Your task to perform on an android device: Play the last video I watched on Youtube Image 0: 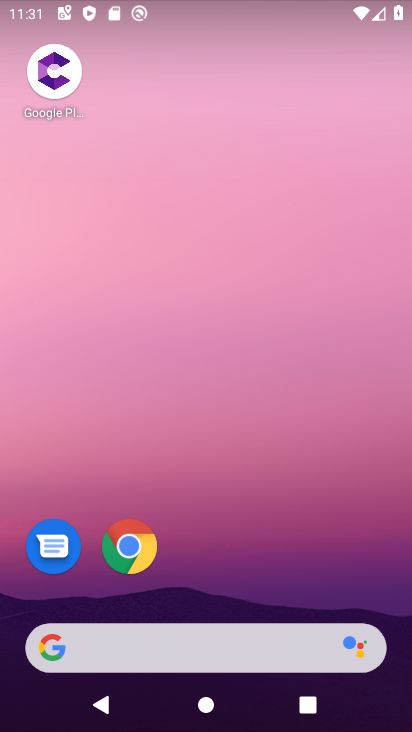
Step 0: drag from (231, 538) to (157, 77)
Your task to perform on an android device: Play the last video I watched on Youtube Image 1: 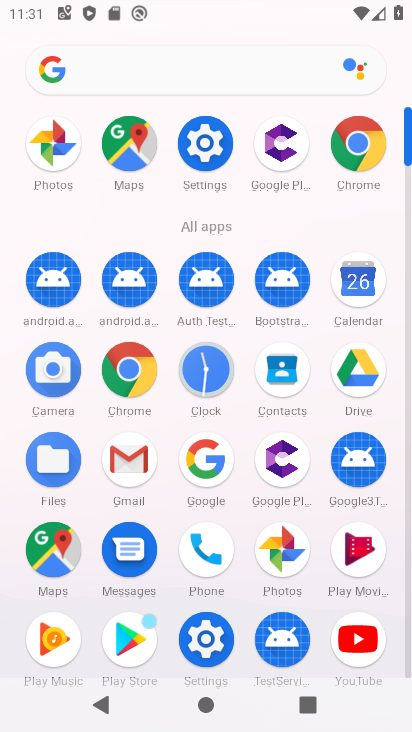
Step 1: click (355, 639)
Your task to perform on an android device: Play the last video I watched on Youtube Image 2: 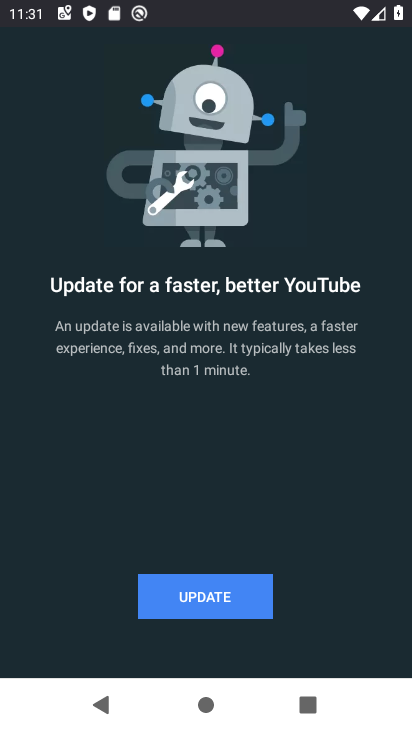
Step 2: click (206, 596)
Your task to perform on an android device: Play the last video I watched on Youtube Image 3: 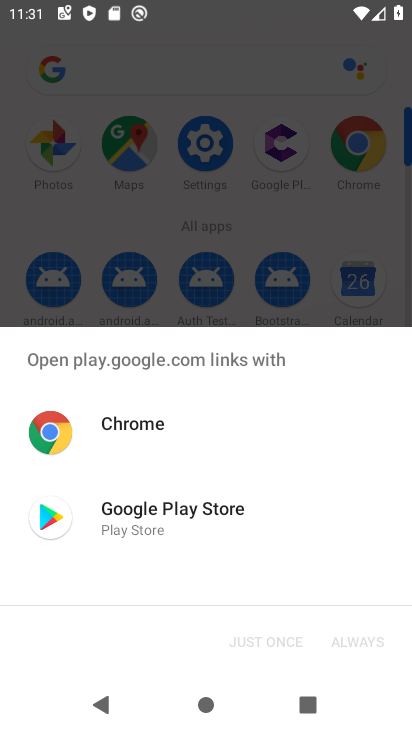
Step 3: click (138, 501)
Your task to perform on an android device: Play the last video I watched on Youtube Image 4: 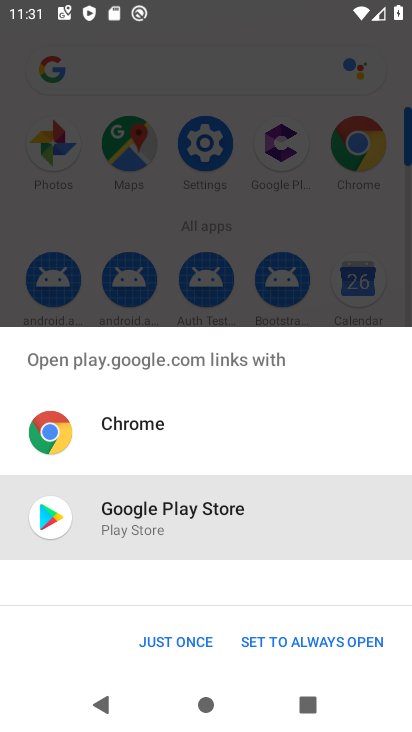
Step 4: click (187, 638)
Your task to perform on an android device: Play the last video I watched on Youtube Image 5: 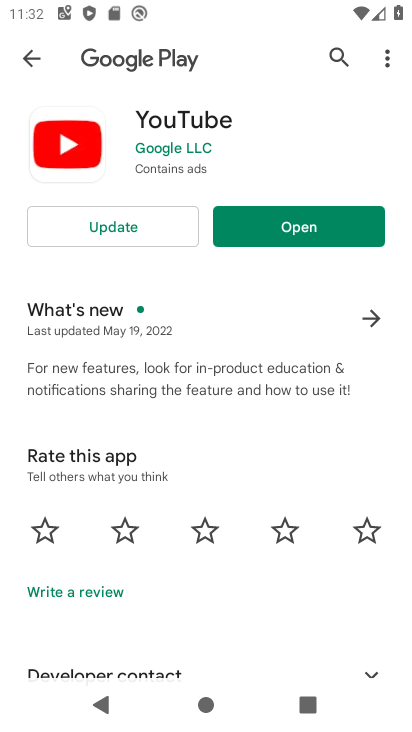
Step 5: click (117, 218)
Your task to perform on an android device: Play the last video I watched on Youtube Image 6: 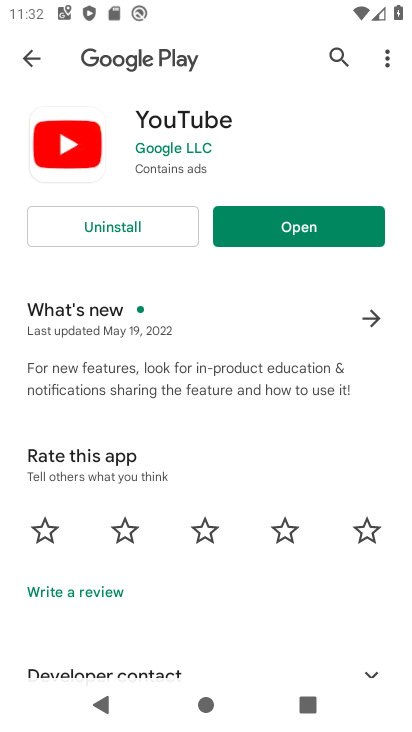
Step 6: click (297, 225)
Your task to perform on an android device: Play the last video I watched on Youtube Image 7: 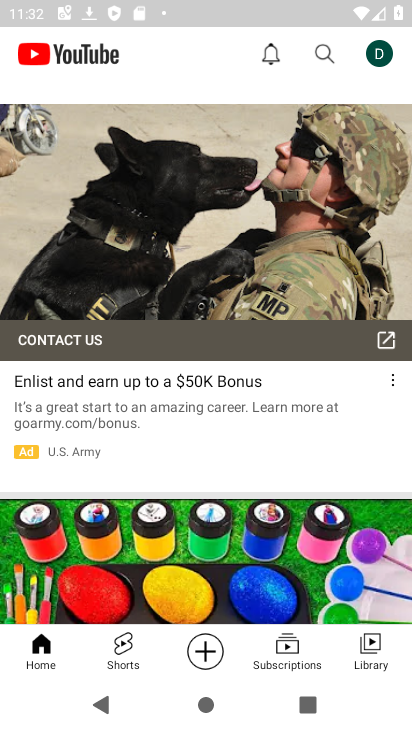
Step 7: click (372, 650)
Your task to perform on an android device: Play the last video I watched on Youtube Image 8: 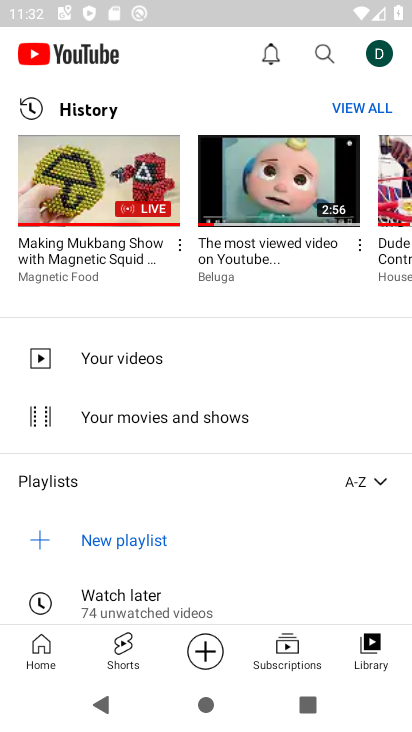
Step 8: click (105, 185)
Your task to perform on an android device: Play the last video I watched on Youtube Image 9: 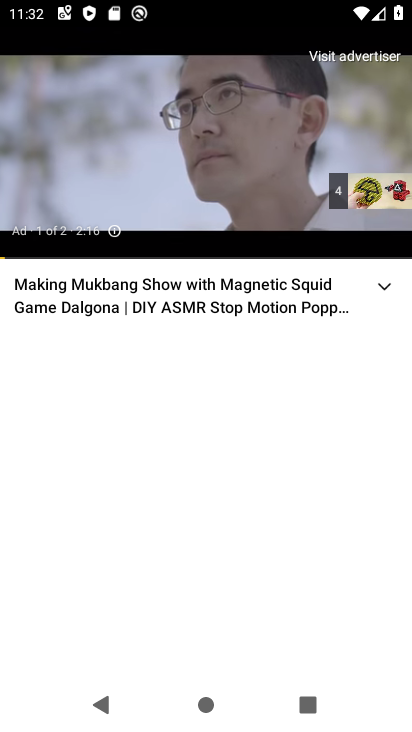
Step 9: click (218, 144)
Your task to perform on an android device: Play the last video I watched on Youtube Image 10: 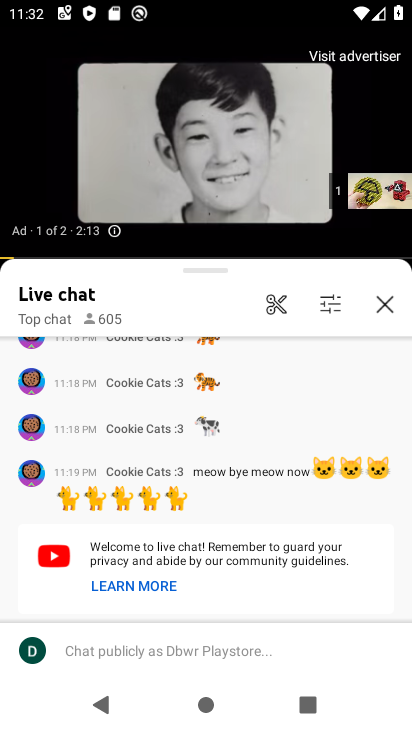
Step 10: task complete